Your task to perform on an android device: Show me productivity apps on the Play Store Image 0: 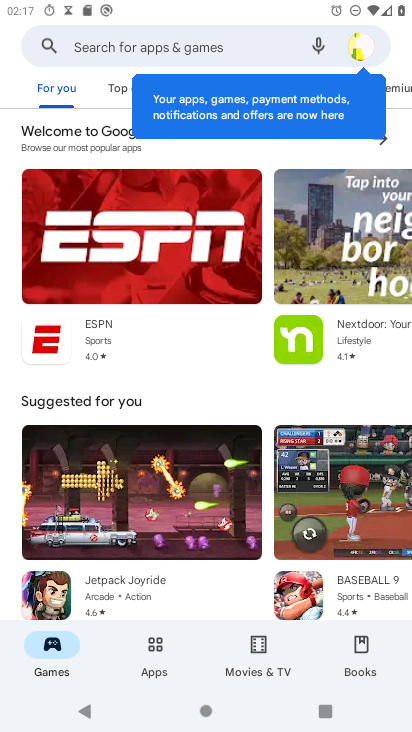
Step 0: press home button
Your task to perform on an android device: Show me productivity apps on the Play Store Image 1: 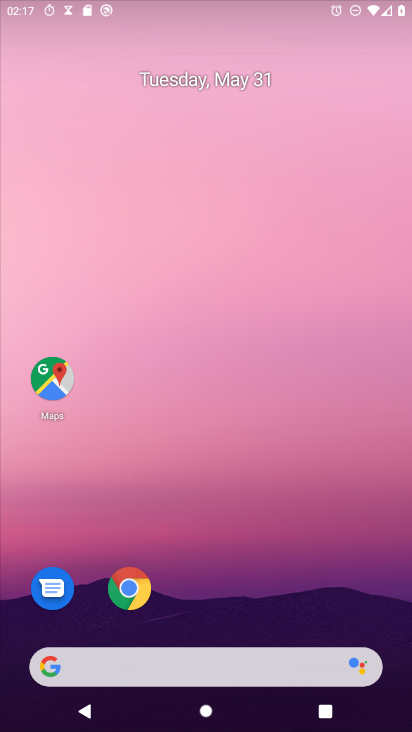
Step 1: drag from (284, 694) to (311, 117)
Your task to perform on an android device: Show me productivity apps on the Play Store Image 2: 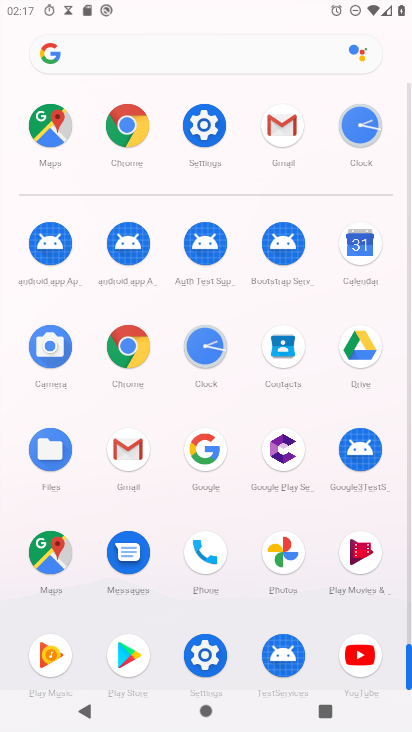
Step 2: click (131, 658)
Your task to perform on an android device: Show me productivity apps on the Play Store Image 3: 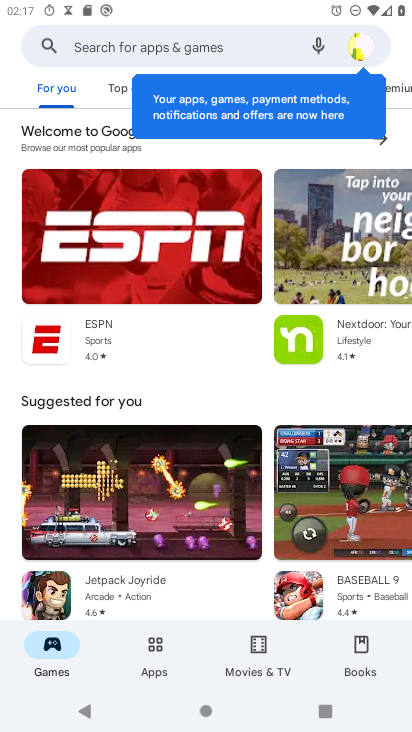
Step 3: click (147, 651)
Your task to perform on an android device: Show me productivity apps on the Play Store Image 4: 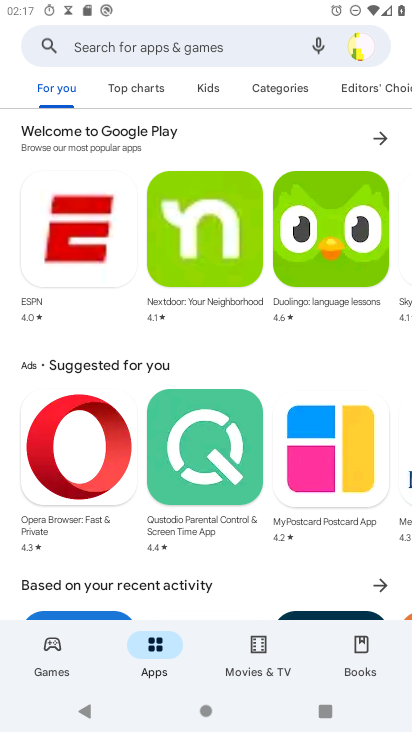
Step 4: drag from (290, 578) to (282, 79)
Your task to perform on an android device: Show me productivity apps on the Play Store Image 5: 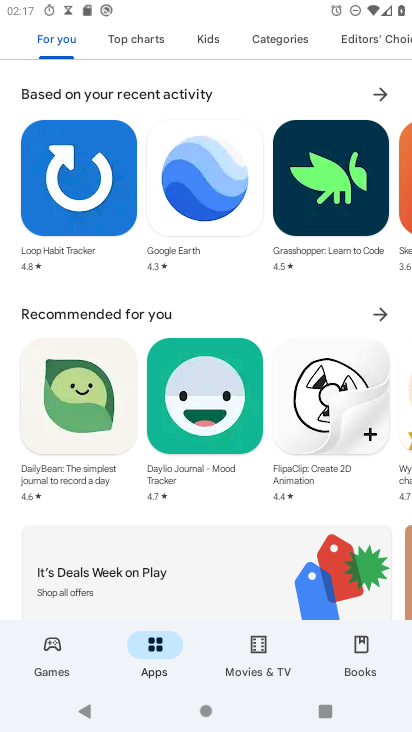
Step 5: drag from (268, 577) to (292, 169)
Your task to perform on an android device: Show me productivity apps on the Play Store Image 6: 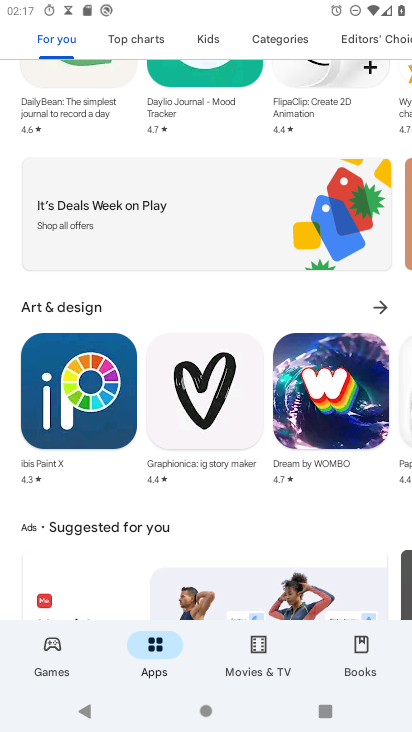
Step 6: drag from (314, 551) to (320, 134)
Your task to perform on an android device: Show me productivity apps on the Play Store Image 7: 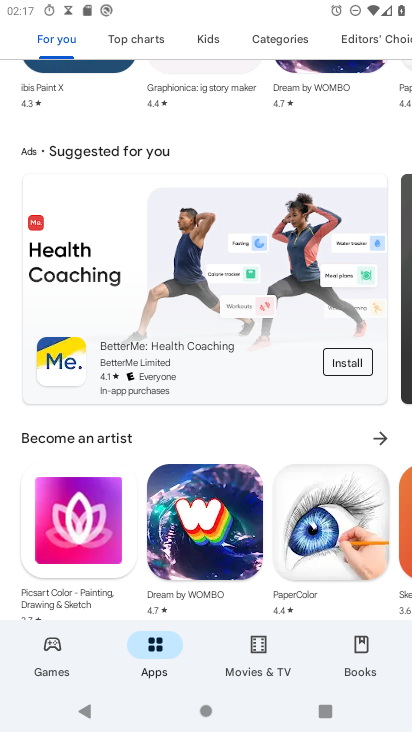
Step 7: drag from (275, 444) to (334, 59)
Your task to perform on an android device: Show me productivity apps on the Play Store Image 8: 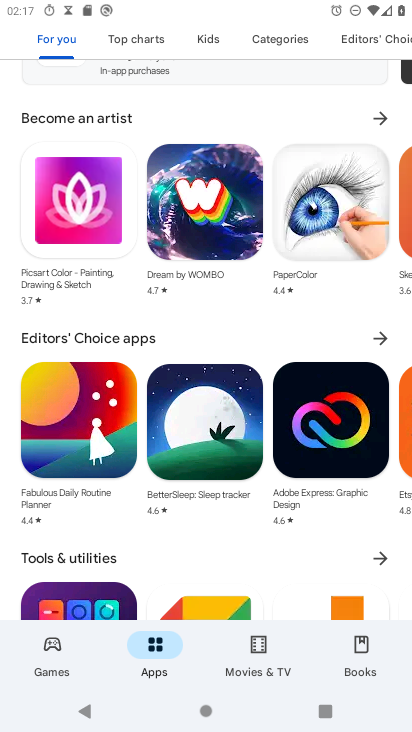
Step 8: drag from (251, 523) to (336, 75)
Your task to perform on an android device: Show me productivity apps on the Play Store Image 9: 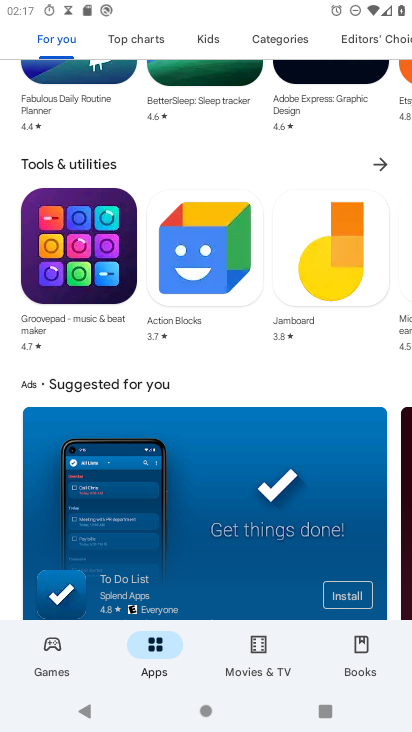
Step 9: drag from (285, 393) to (317, 48)
Your task to perform on an android device: Show me productivity apps on the Play Store Image 10: 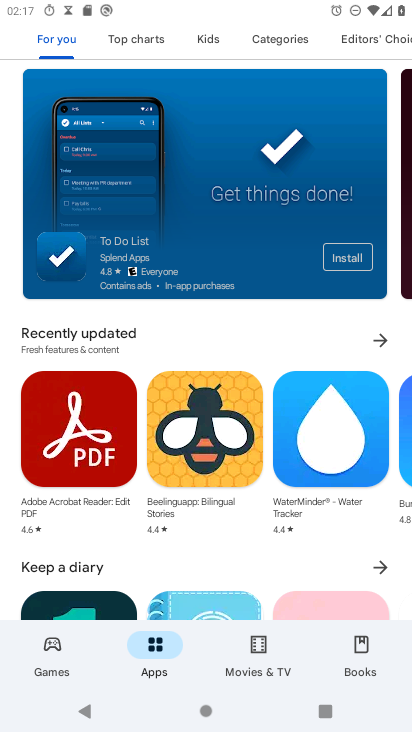
Step 10: drag from (257, 573) to (341, 4)
Your task to perform on an android device: Show me productivity apps on the Play Store Image 11: 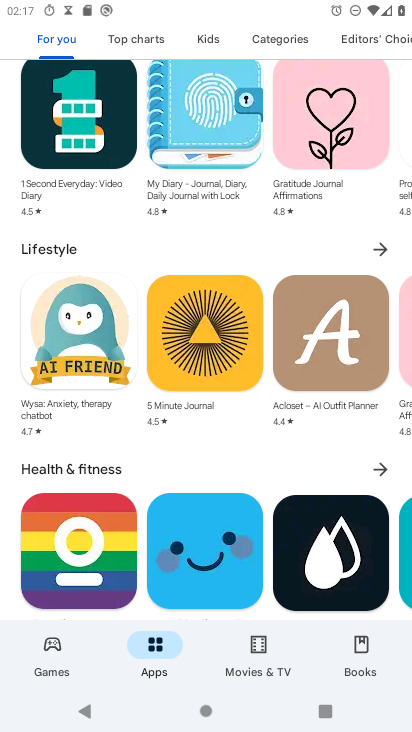
Step 11: drag from (248, 456) to (347, 29)
Your task to perform on an android device: Show me productivity apps on the Play Store Image 12: 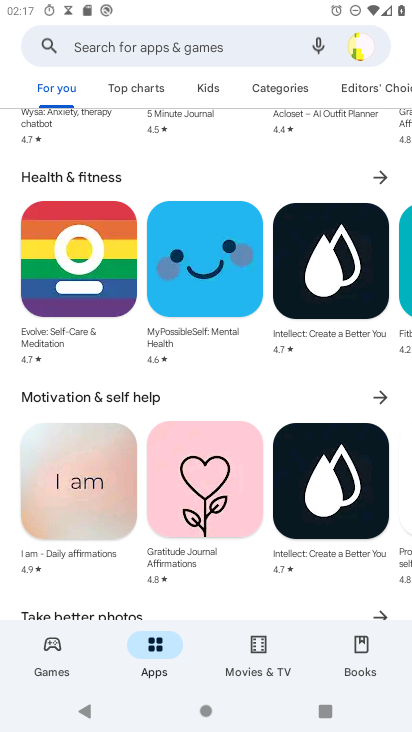
Step 12: drag from (278, 455) to (332, 86)
Your task to perform on an android device: Show me productivity apps on the Play Store Image 13: 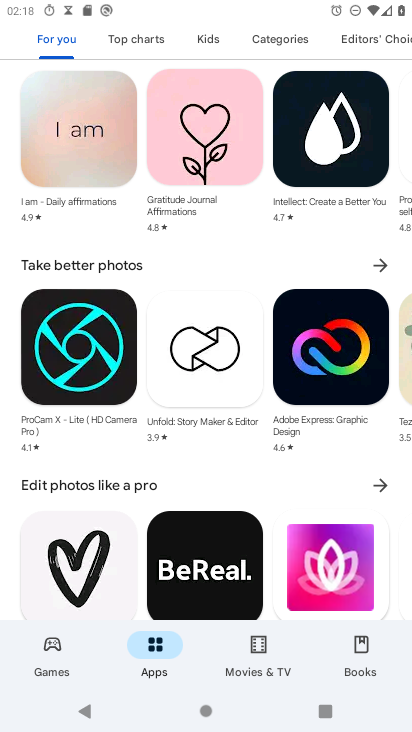
Step 13: drag from (317, 480) to (310, 55)
Your task to perform on an android device: Show me productivity apps on the Play Store Image 14: 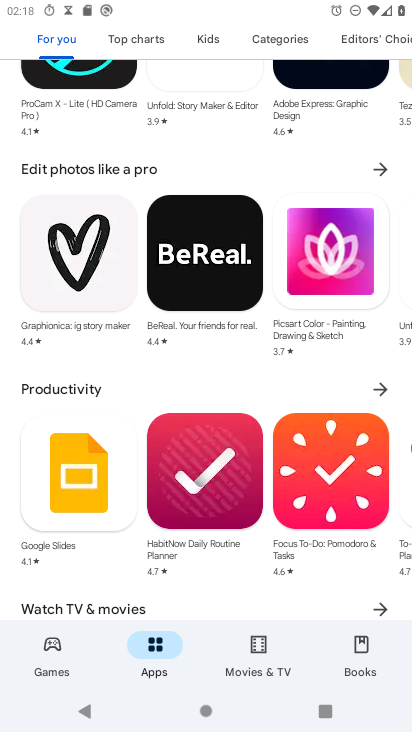
Step 14: click (377, 391)
Your task to perform on an android device: Show me productivity apps on the Play Store Image 15: 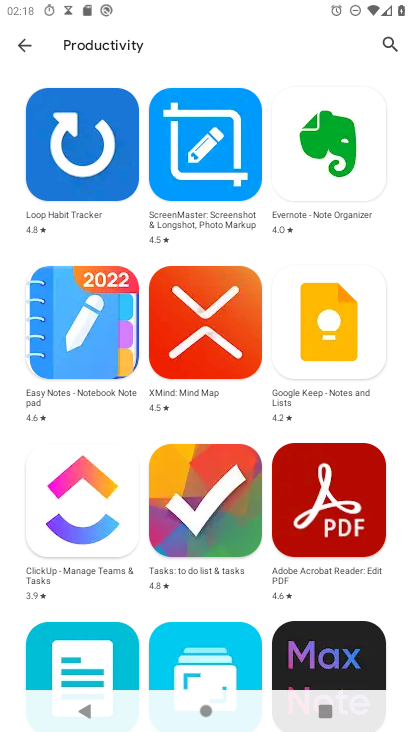
Step 15: task complete